Your task to perform on an android device: Open notification settings Image 0: 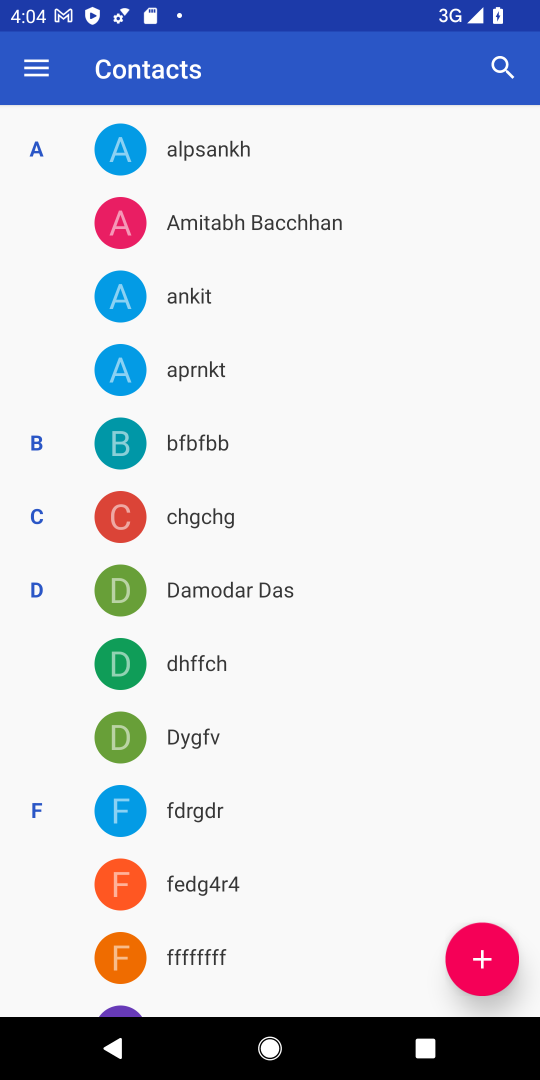
Step 0: press home button
Your task to perform on an android device: Open notification settings Image 1: 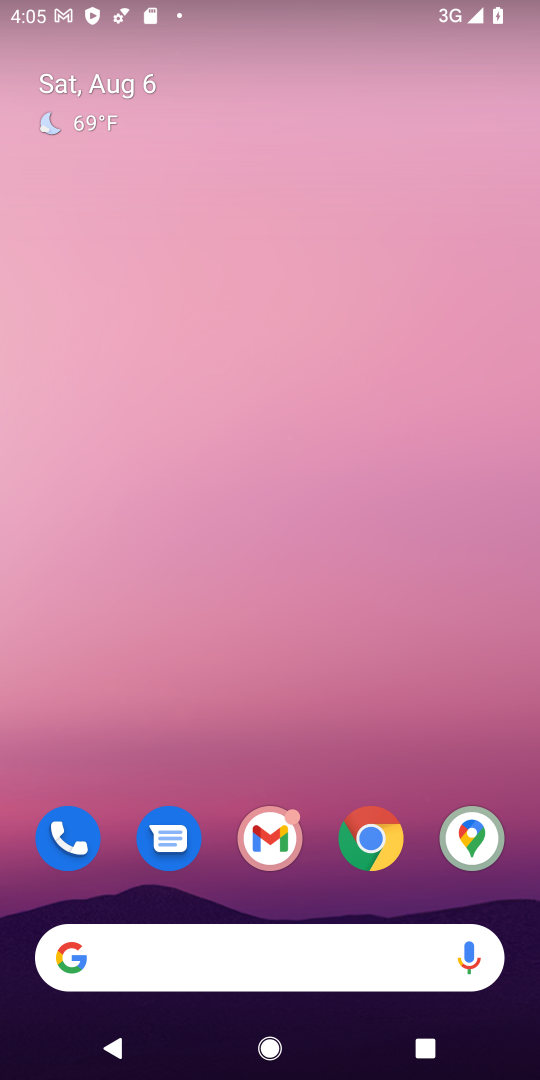
Step 1: drag from (32, 884) to (335, 146)
Your task to perform on an android device: Open notification settings Image 2: 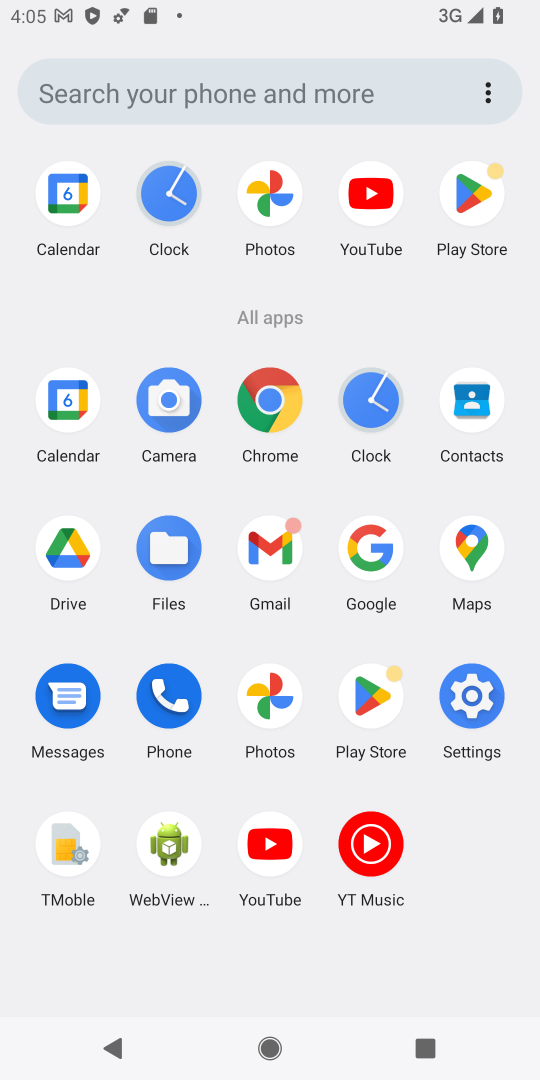
Step 2: click (479, 704)
Your task to perform on an android device: Open notification settings Image 3: 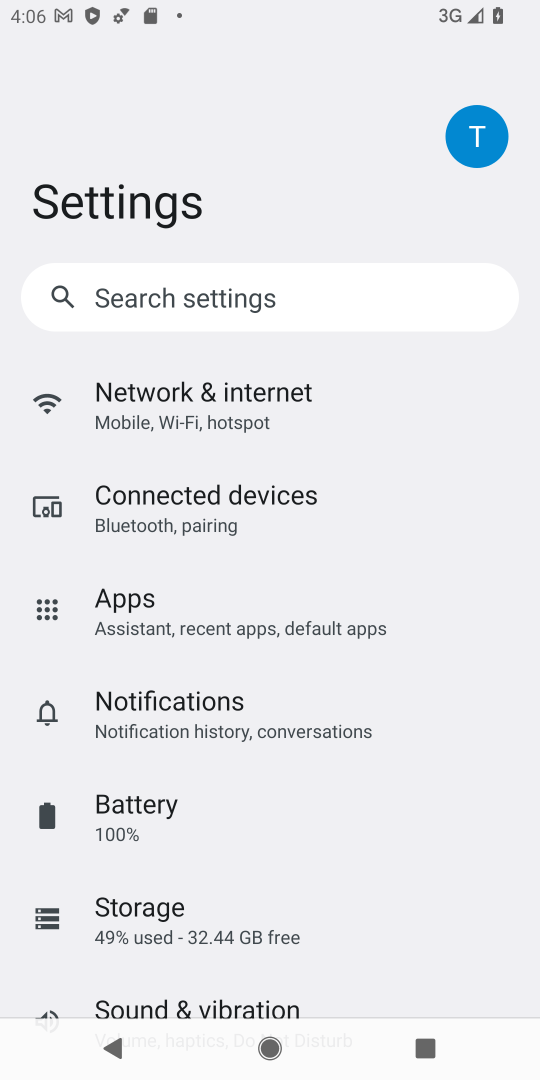
Step 3: click (291, 719)
Your task to perform on an android device: Open notification settings Image 4: 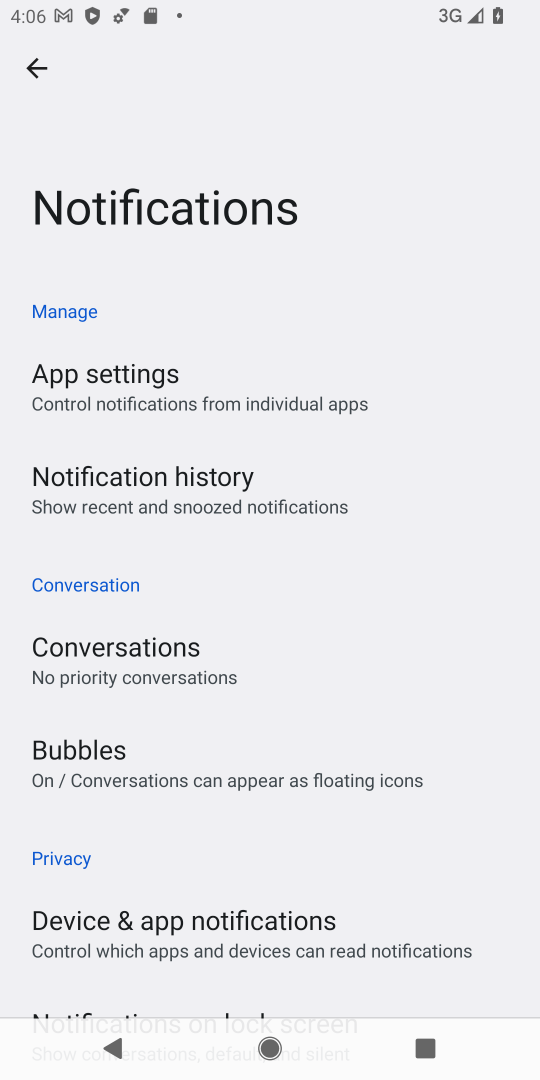
Step 4: task complete